Your task to perform on an android device: Search for pizza restaurants on Maps Image 0: 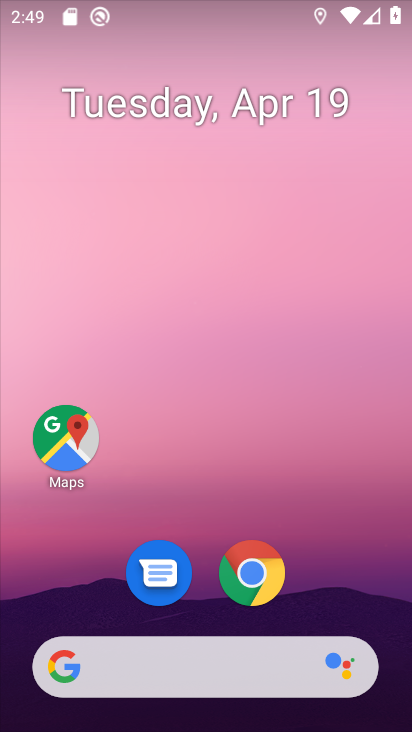
Step 0: drag from (60, 639) to (158, 171)
Your task to perform on an android device: Search for pizza restaurants on Maps Image 1: 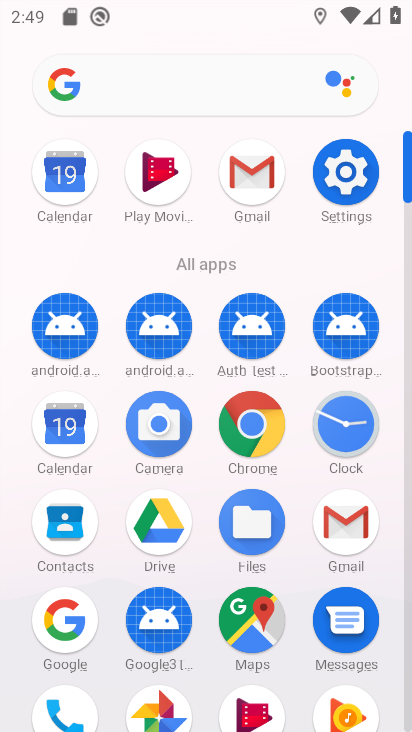
Step 1: click (268, 615)
Your task to perform on an android device: Search for pizza restaurants on Maps Image 2: 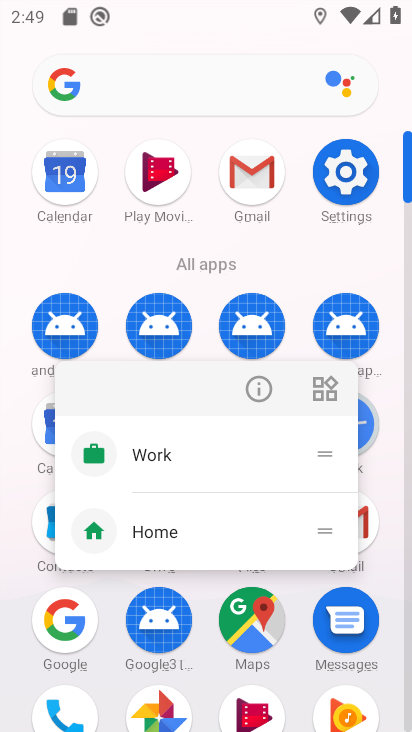
Step 2: click (248, 622)
Your task to perform on an android device: Search for pizza restaurants on Maps Image 3: 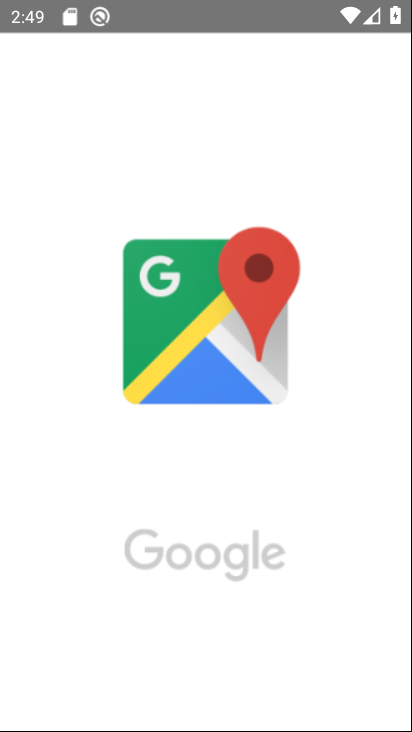
Step 3: task complete